Your task to perform on an android device: toggle translation in the chrome app Image 0: 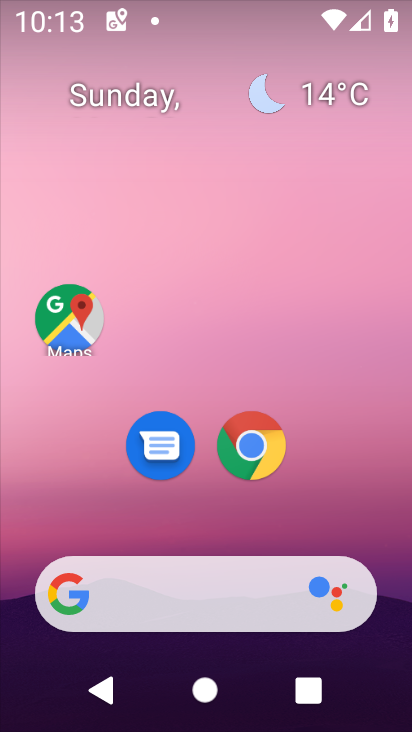
Step 0: click (174, 18)
Your task to perform on an android device: toggle translation in the chrome app Image 1: 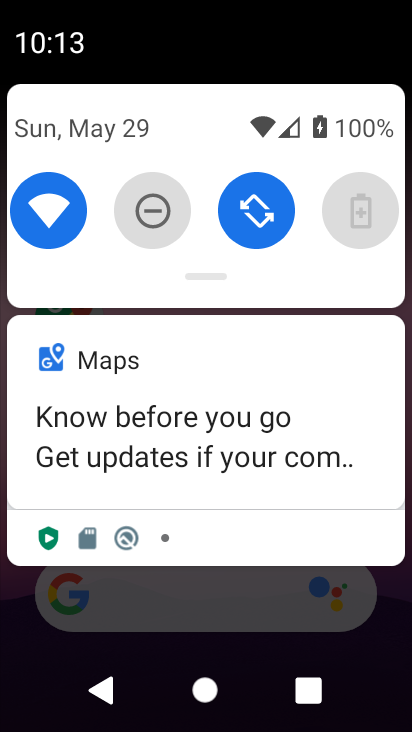
Step 1: drag from (211, 506) to (230, 99)
Your task to perform on an android device: toggle translation in the chrome app Image 2: 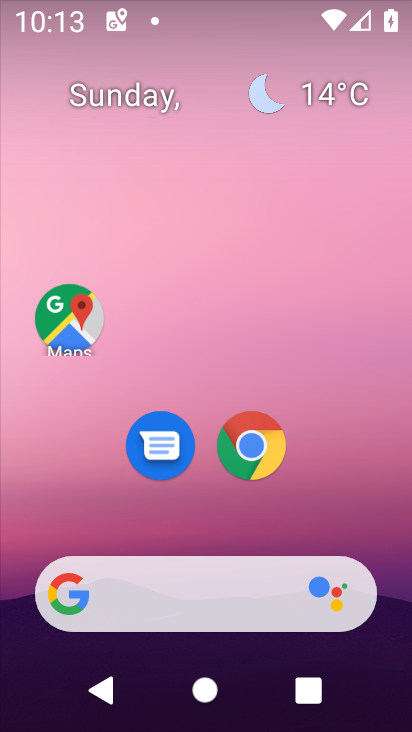
Step 2: drag from (205, 479) to (222, 112)
Your task to perform on an android device: toggle translation in the chrome app Image 3: 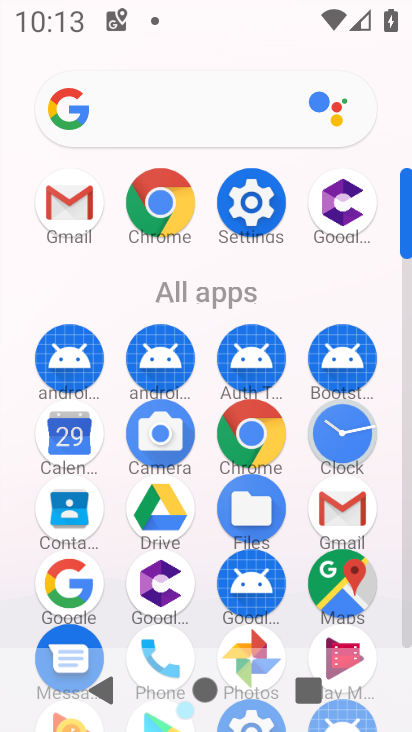
Step 3: click (156, 197)
Your task to perform on an android device: toggle translation in the chrome app Image 4: 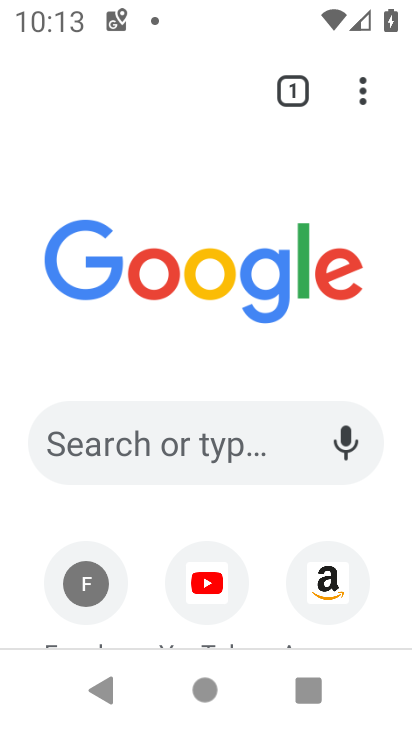
Step 4: drag from (365, 81) to (200, 484)
Your task to perform on an android device: toggle translation in the chrome app Image 5: 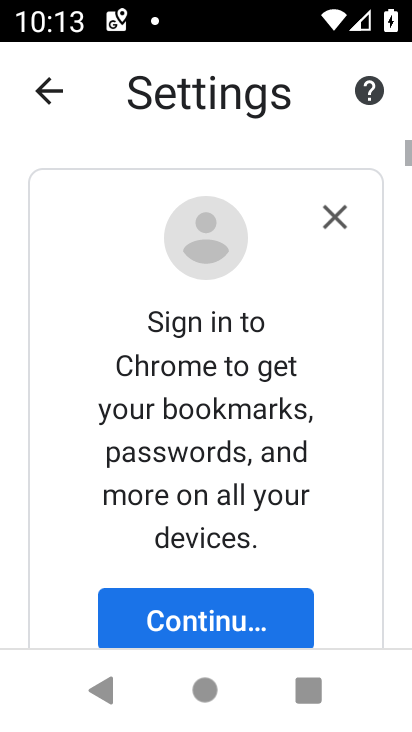
Step 5: drag from (242, 502) to (290, 67)
Your task to perform on an android device: toggle translation in the chrome app Image 6: 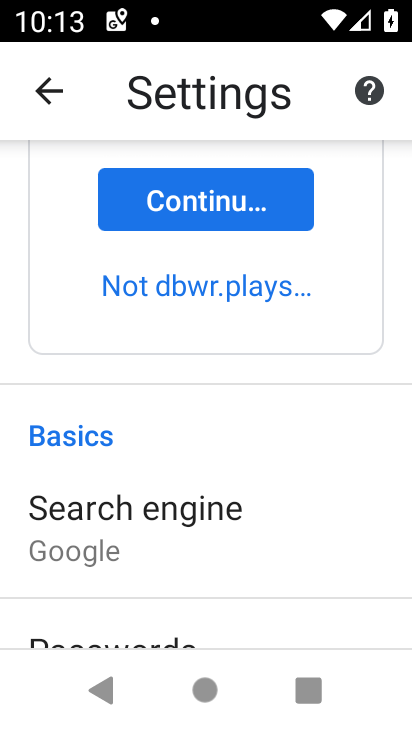
Step 6: drag from (293, 505) to (335, 57)
Your task to perform on an android device: toggle translation in the chrome app Image 7: 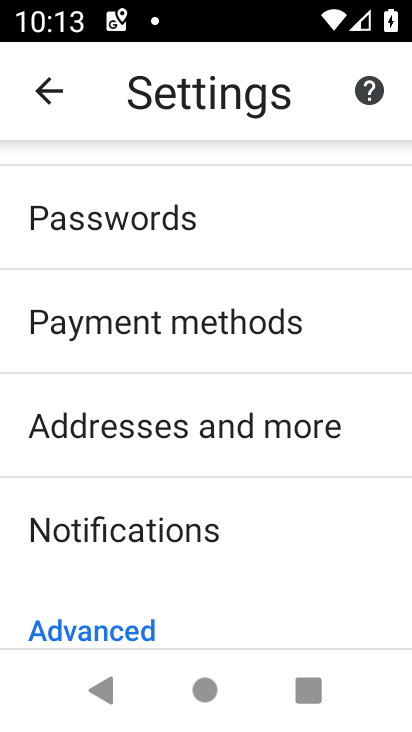
Step 7: drag from (256, 489) to (322, 65)
Your task to perform on an android device: toggle translation in the chrome app Image 8: 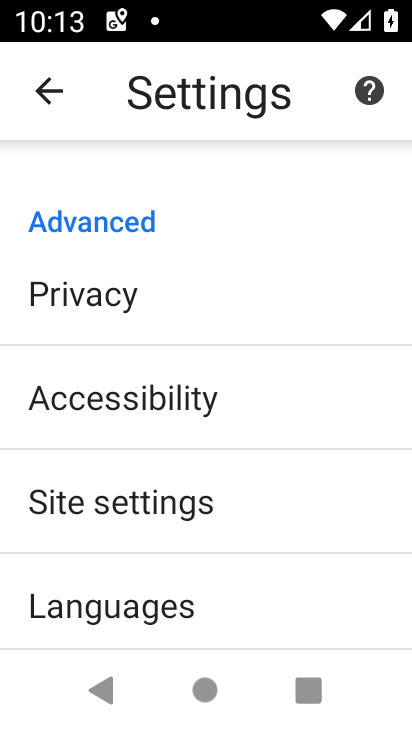
Step 8: click (198, 577)
Your task to perform on an android device: toggle translation in the chrome app Image 9: 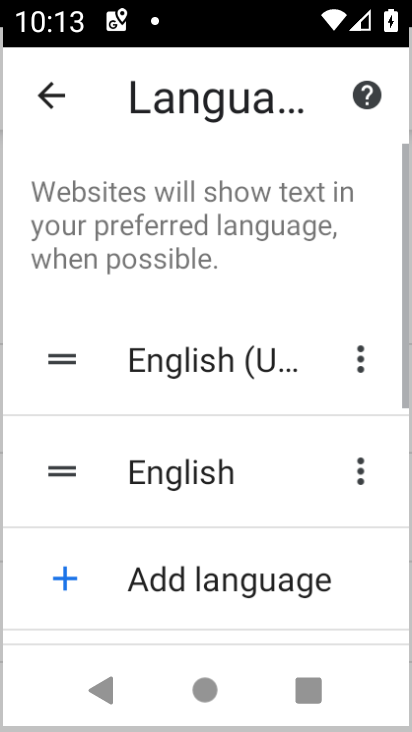
Step 9: drag from (211, 558) to (290, 145)
Your task to perform on an android device: toggle translation in the chrome app Image 10: 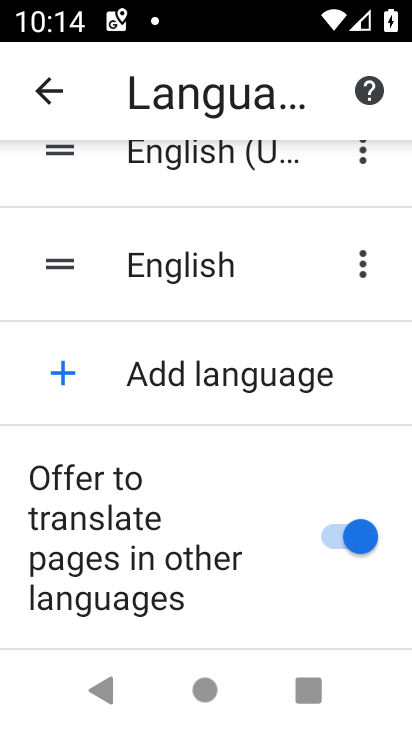
Step 10: click (342, 540)
Your task to perform on an android device: toggle translation in the chrome app Image 11: 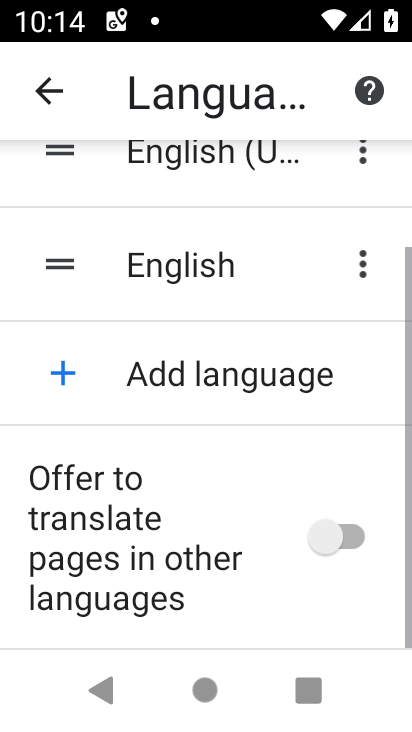
Step 11: task complete